Your task to perform on an android device: Search for hotels in New York Image 0: 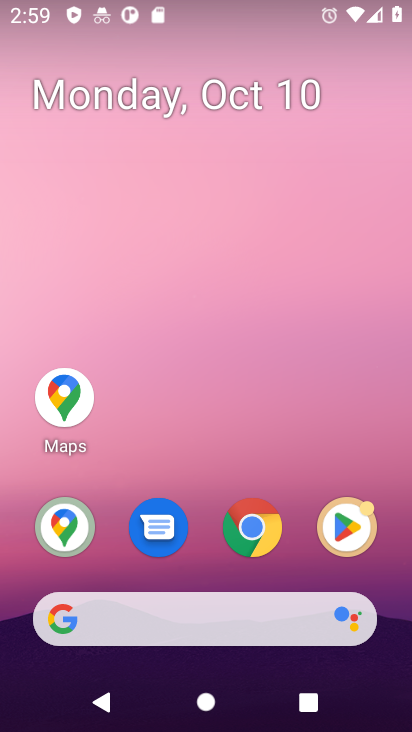
Step 0: click (61, 532)
Your task to perform on an android device: Search for hotels in New York Image 1: 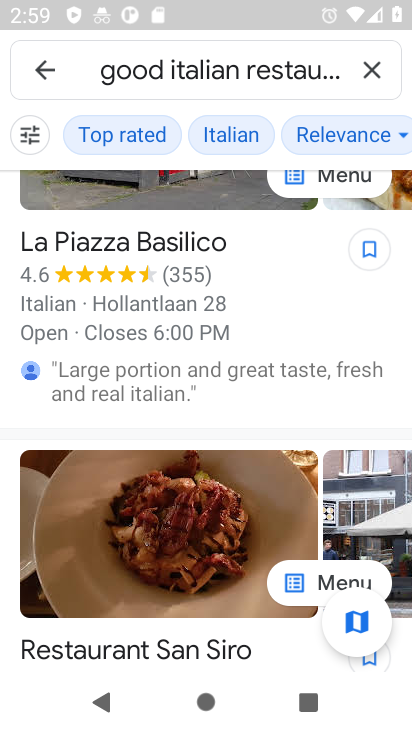
Step 1: click (368, 76)
Your task to perform on an android device: Search for hotels in New York Image 2: 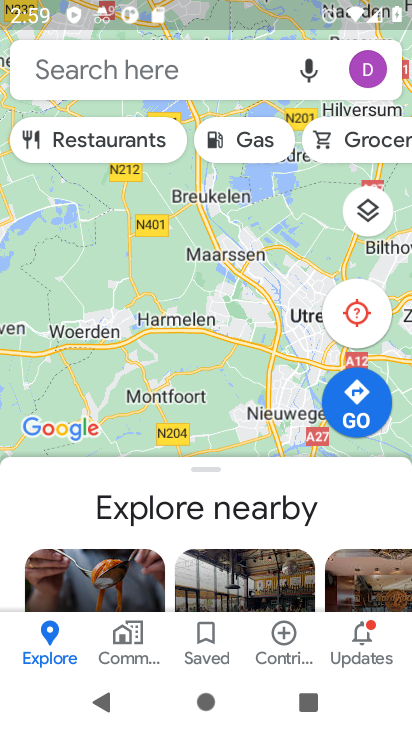
Step 2: click (186, 52)
Your task to perform on an android device: Search for hotels in New York Image 3: 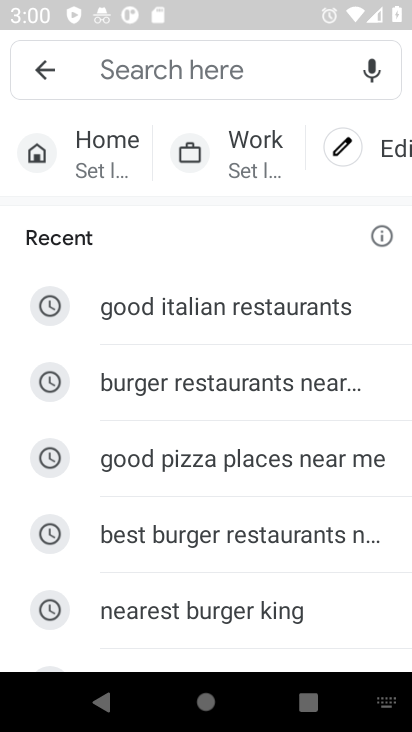
Step 3: type "hotels in new york"
Your task to perform on an android device: Search for hotels in New York Image 4: 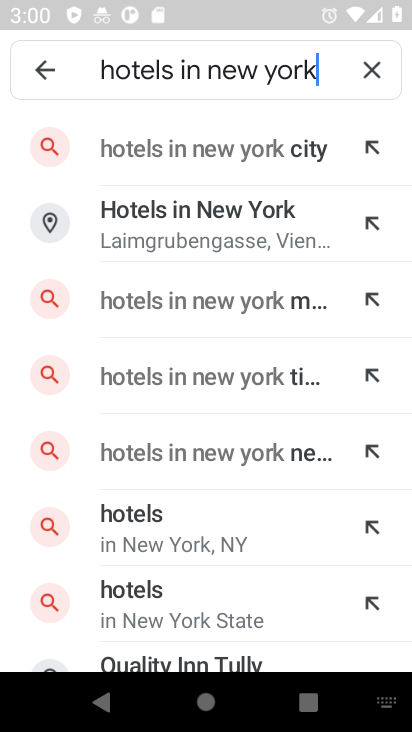
Step 4: click (156, 141)
Your task to perform on an android device: Search for hotels in New York Image 5: 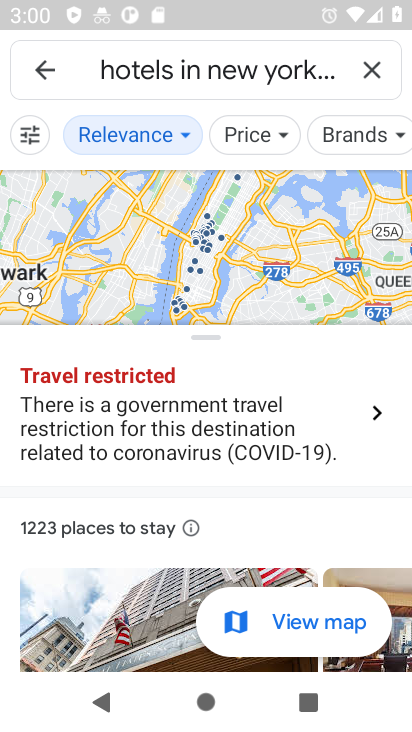
Step 5: task complete